Your task to perform on an android device: refresh tabs in the chrome app Image 0: 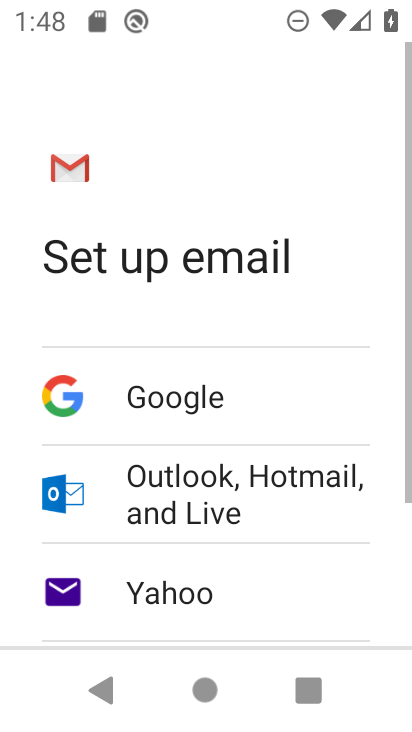
Step 0: press home button
Your task to perform on an android device: refresh tabs in the chrome app Image 1: 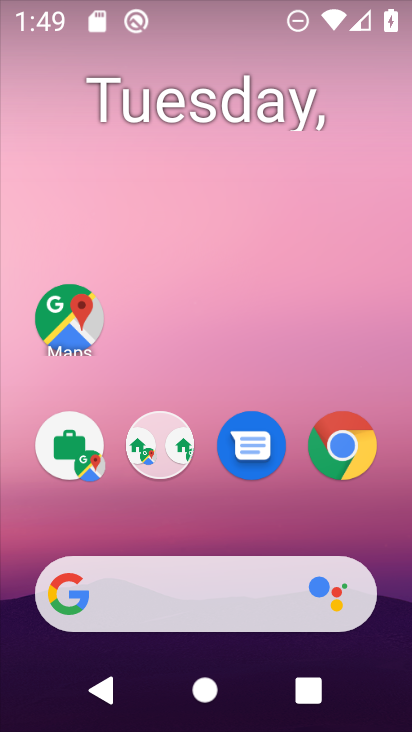
Step 1: click (349, 460)
Your task to perform on an android device: refresh tabs in the chrome app Image 2: 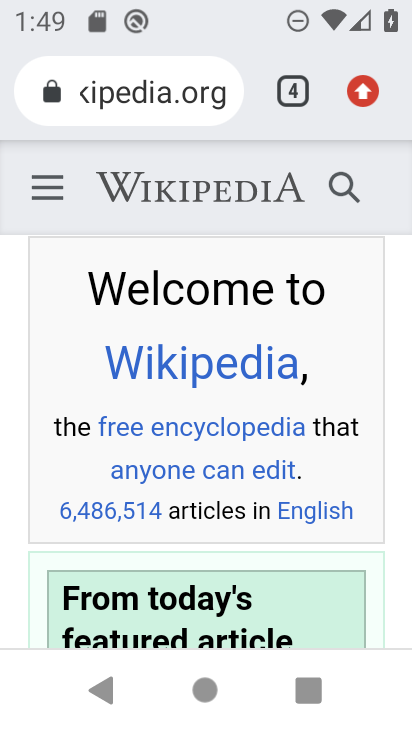
Step 2: click (359, 90)
Your task to perform on an android device: refresh tabs in the chrome app Image 3: 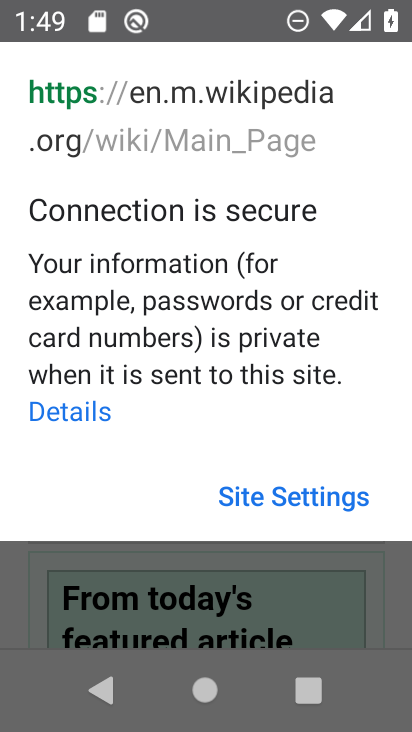
Step 3: task complete